Your task to perform on an android device: Search for macbook pro on walmart.com, select the first entry, and add it to the cart. Image 0: 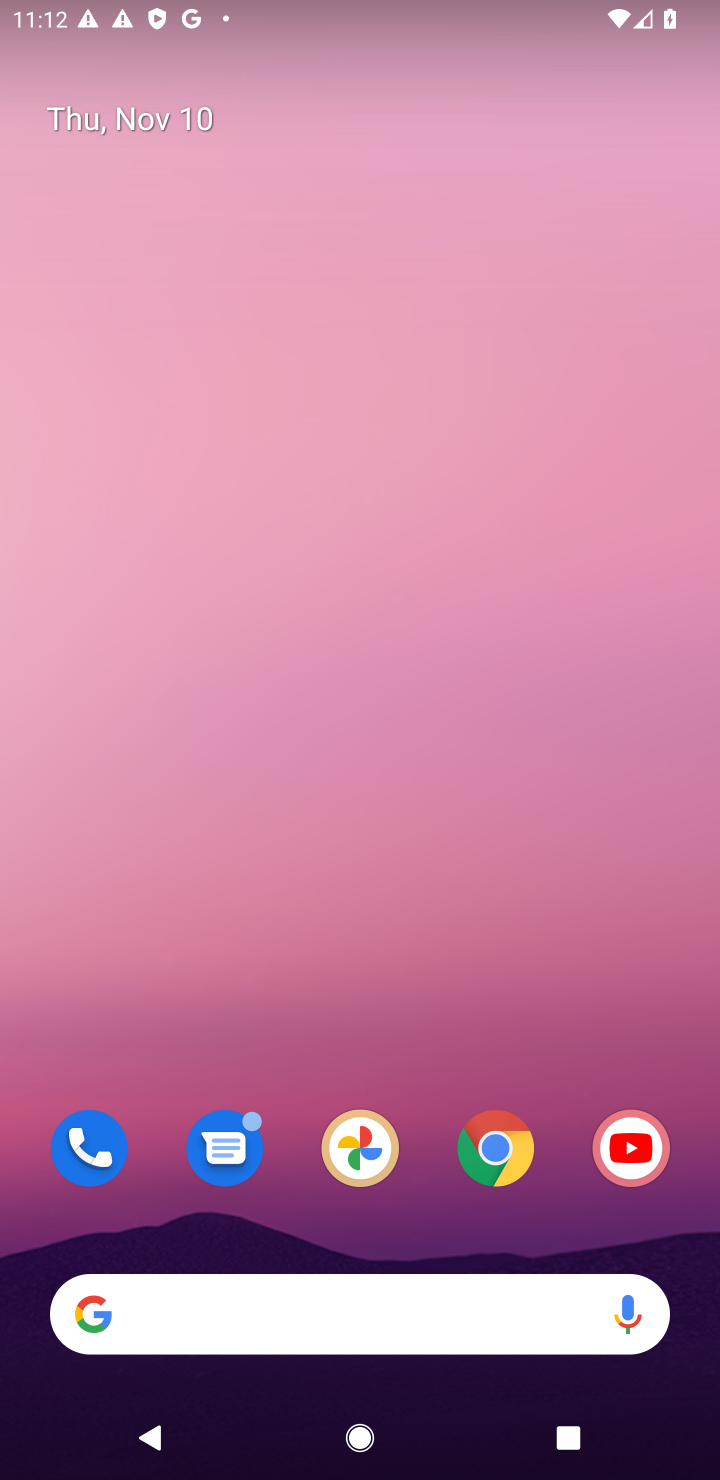
Step 0: press home button
Your task to perform on an android device: Search for macbook pro on walmart.com, select the first entry, and add it to the cart. Image 1: 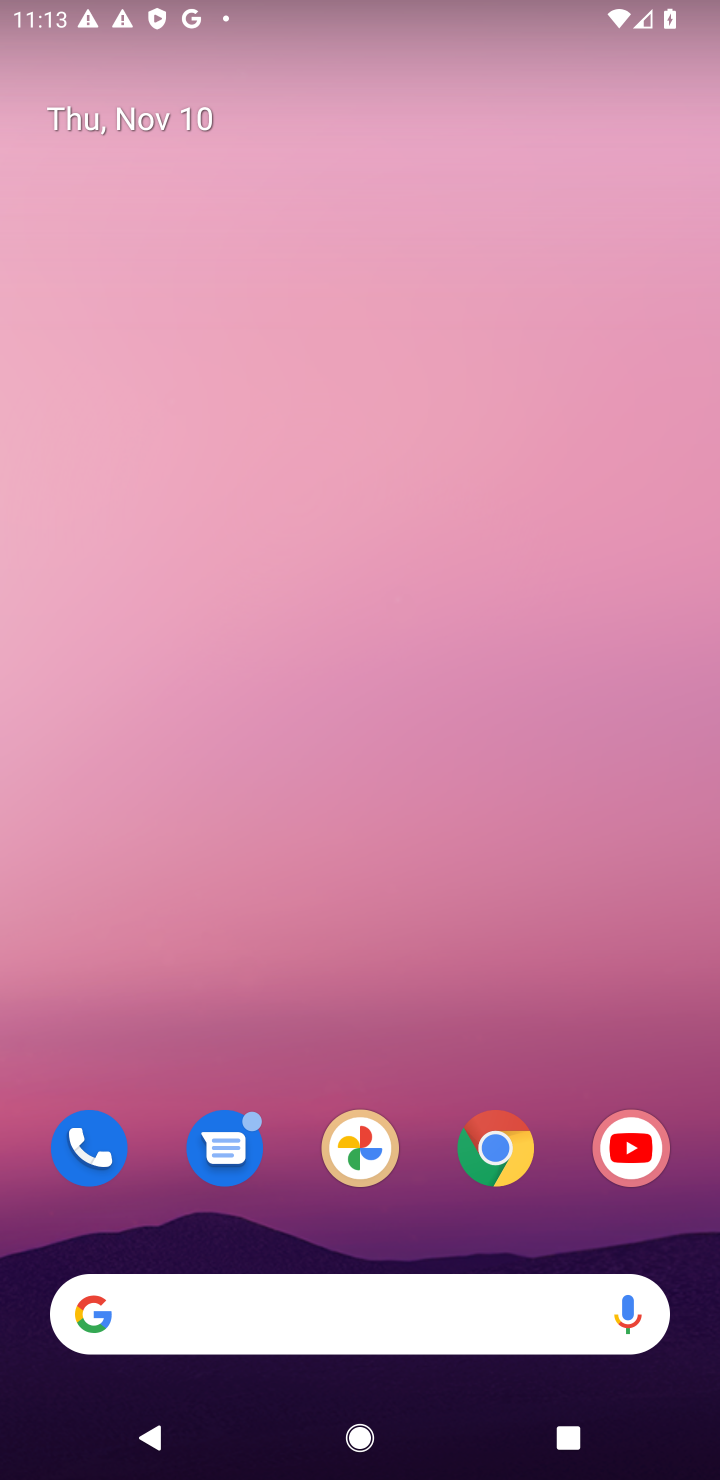
Step 1: click (482, 1137)
Your task to perform on an android device: Search for macbook pro on walmart.com, select the first entry, and add it to the cart. Image 2: 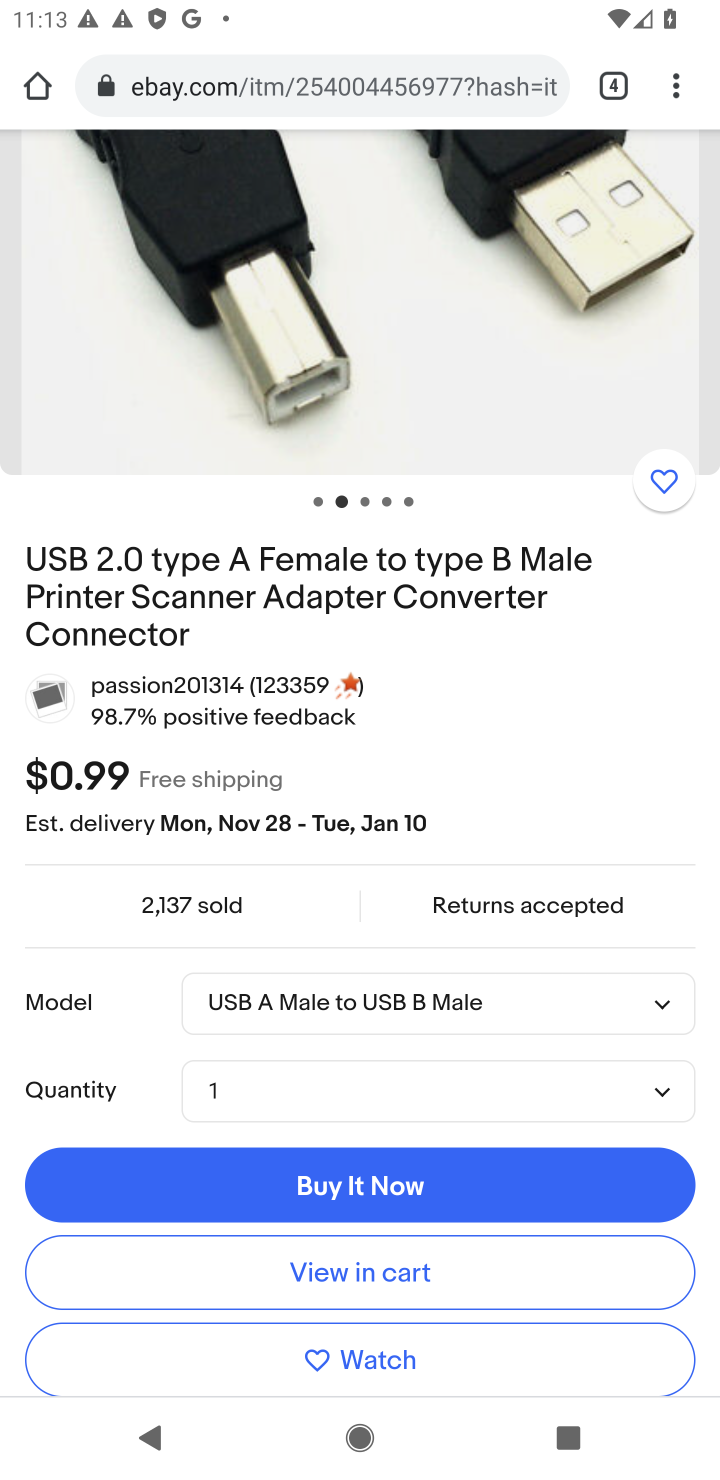
Step 2: click (615, 81)
Your task to perform on an android device: Search for macbook pro on walmart.com, select the first entry, and add it to the cart. Image 3: 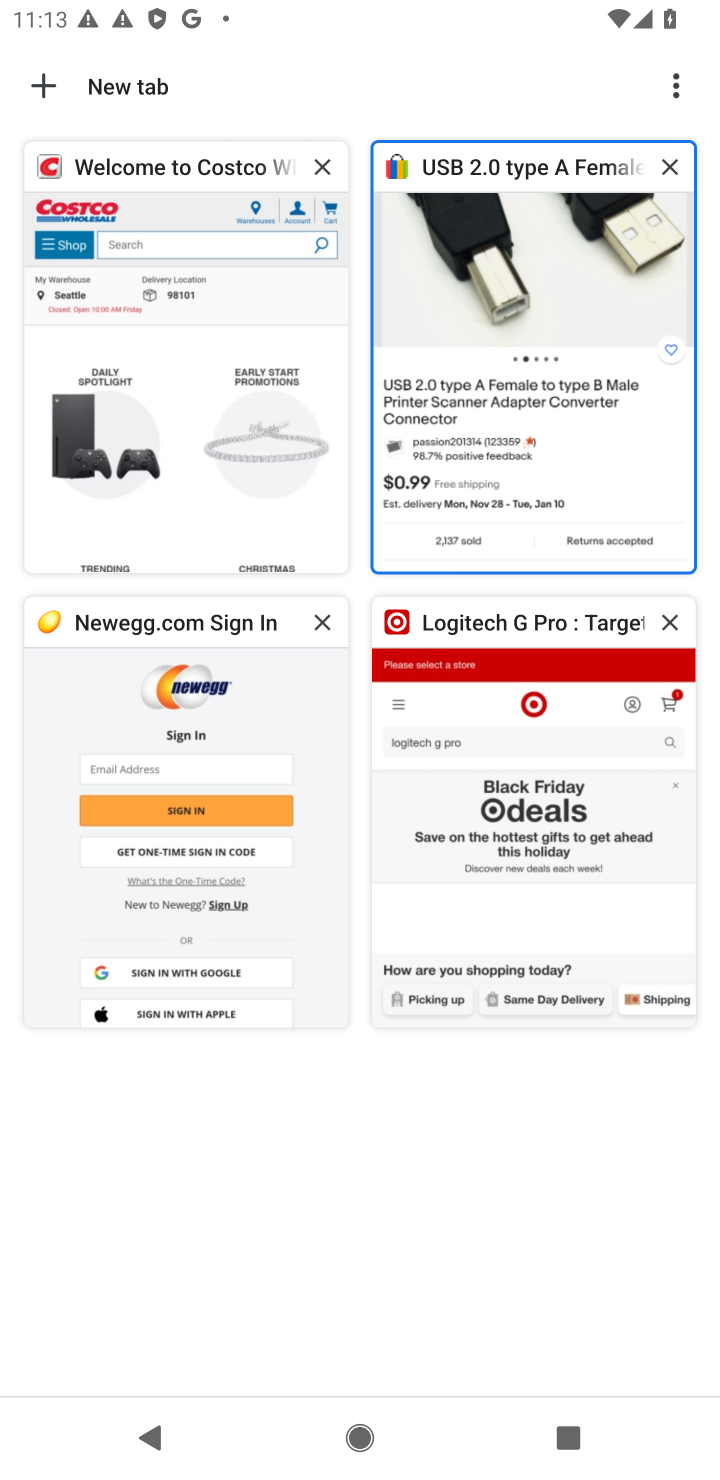
Step 3: click (38, 92)
Your task to perform on an android device: Search for macbook pro on walmart.com, select the first entry, and add it to the cart. Image 4: 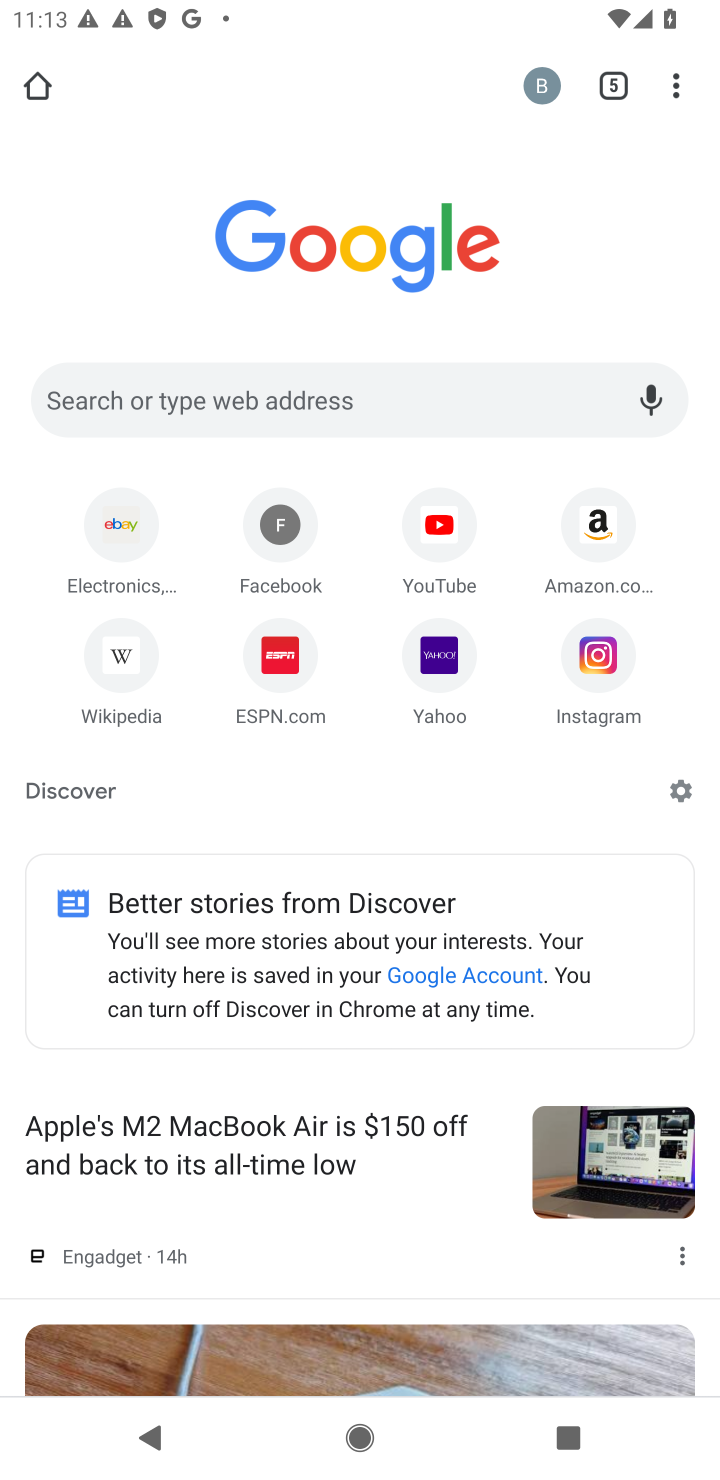
Step 4: click (614, 90)
Your task to perform on an android device: Search for macbook pro on walmart.com, select the first entry, and add it to the cart. Image 5: 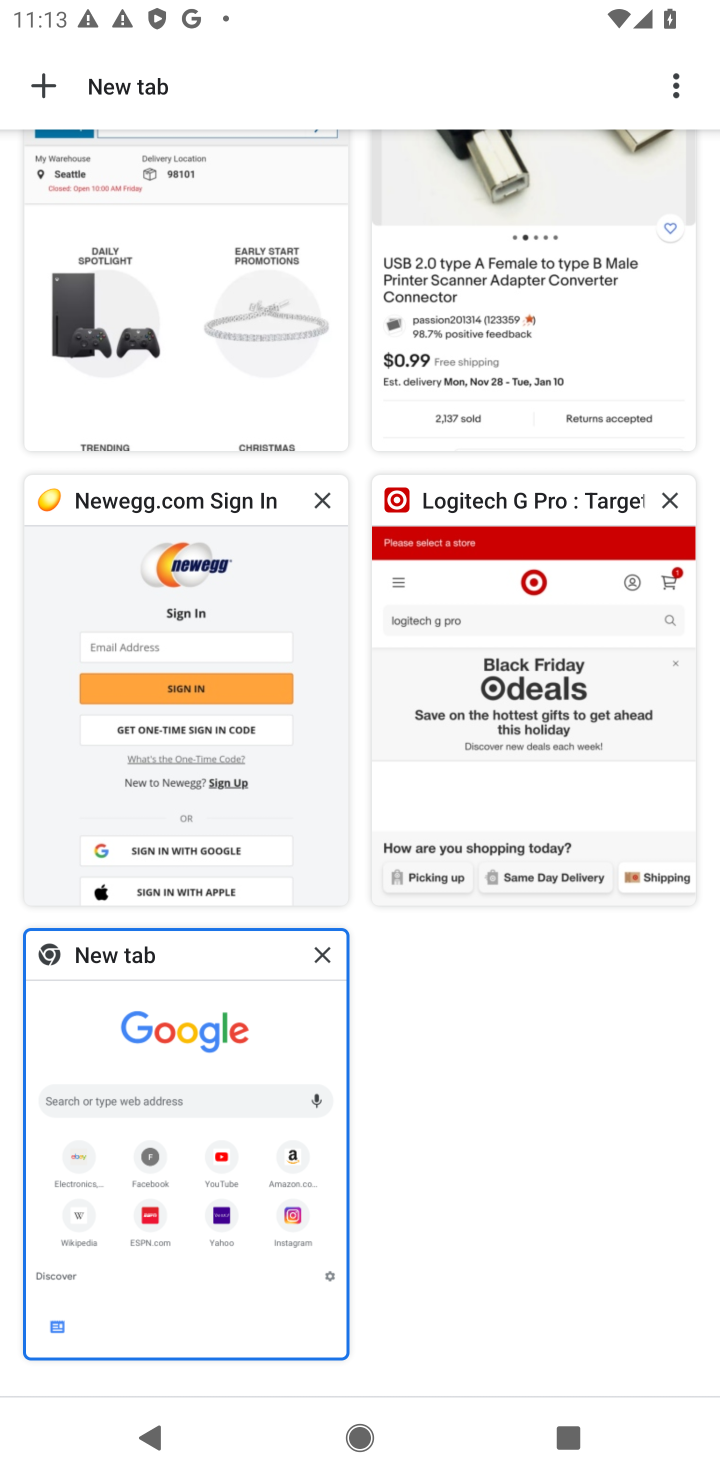
Step 5: click (279, 1015)
Your task to perform on an android device: Search for macbook pro on walmart.com, select the first entry, and add it to the cart. Image 6: 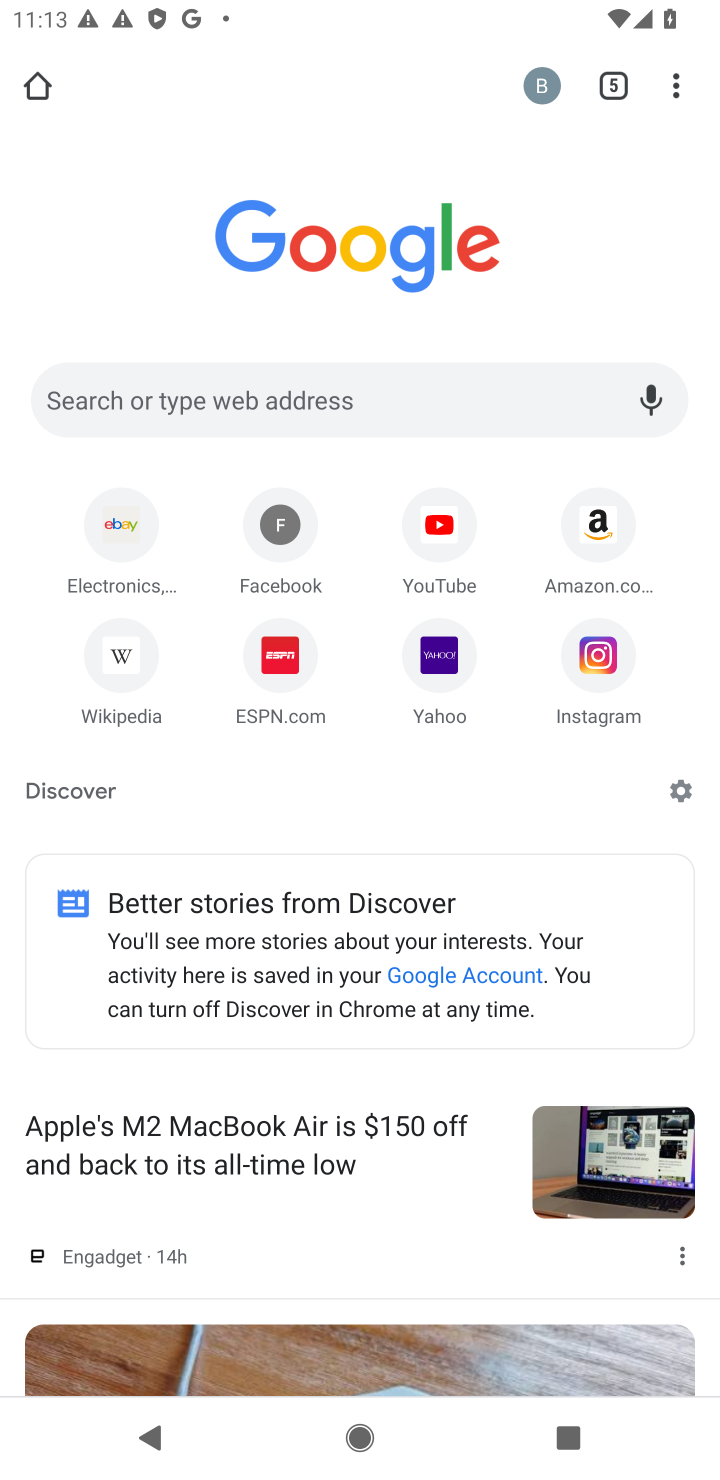
Step 6: click (291, 391)
Your task to perform on an android device: Search for macbook pro on walmart.com, select the first entry, and add it to the cart. Image 7: 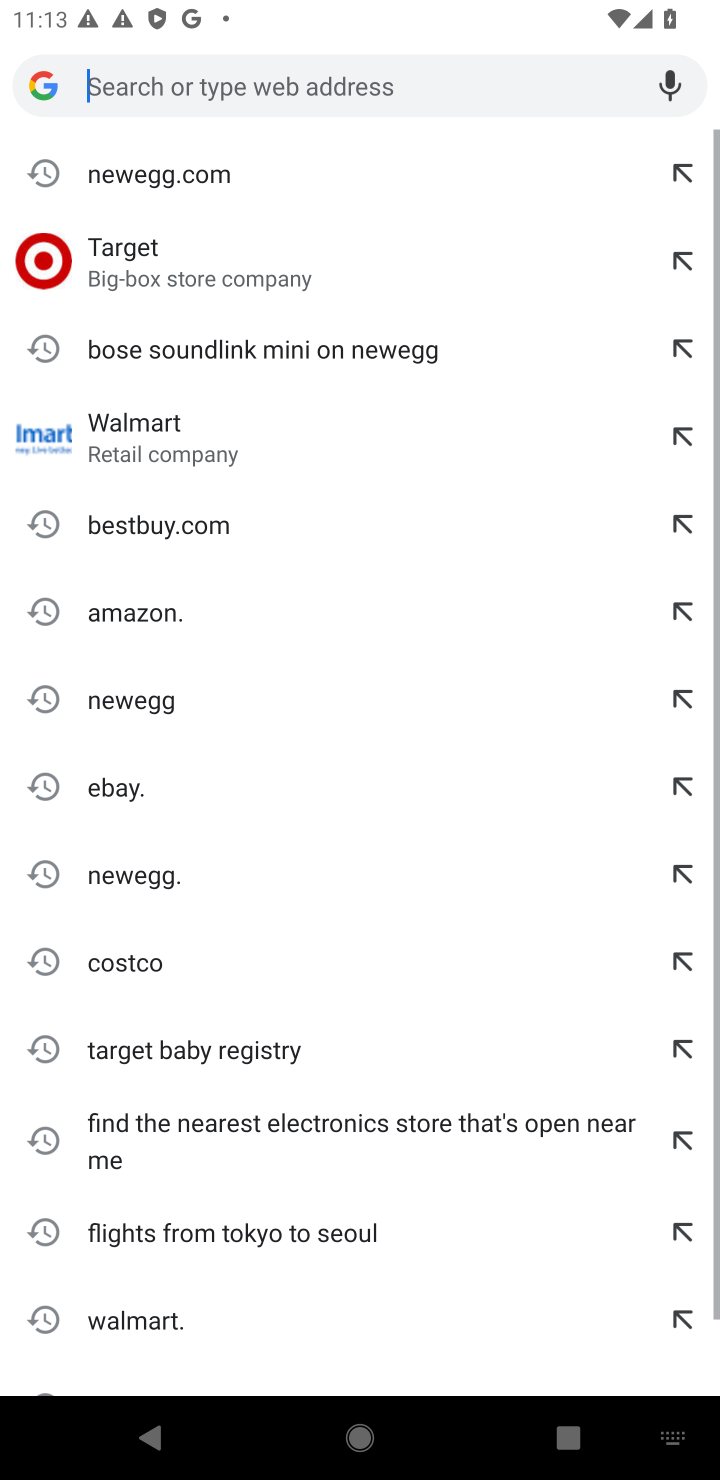
Step 7: click (170, 435)
Your task to perform on an android device: Search for macbook pro on walmart.com, select the first entry, and add it to the cart. Image 8: 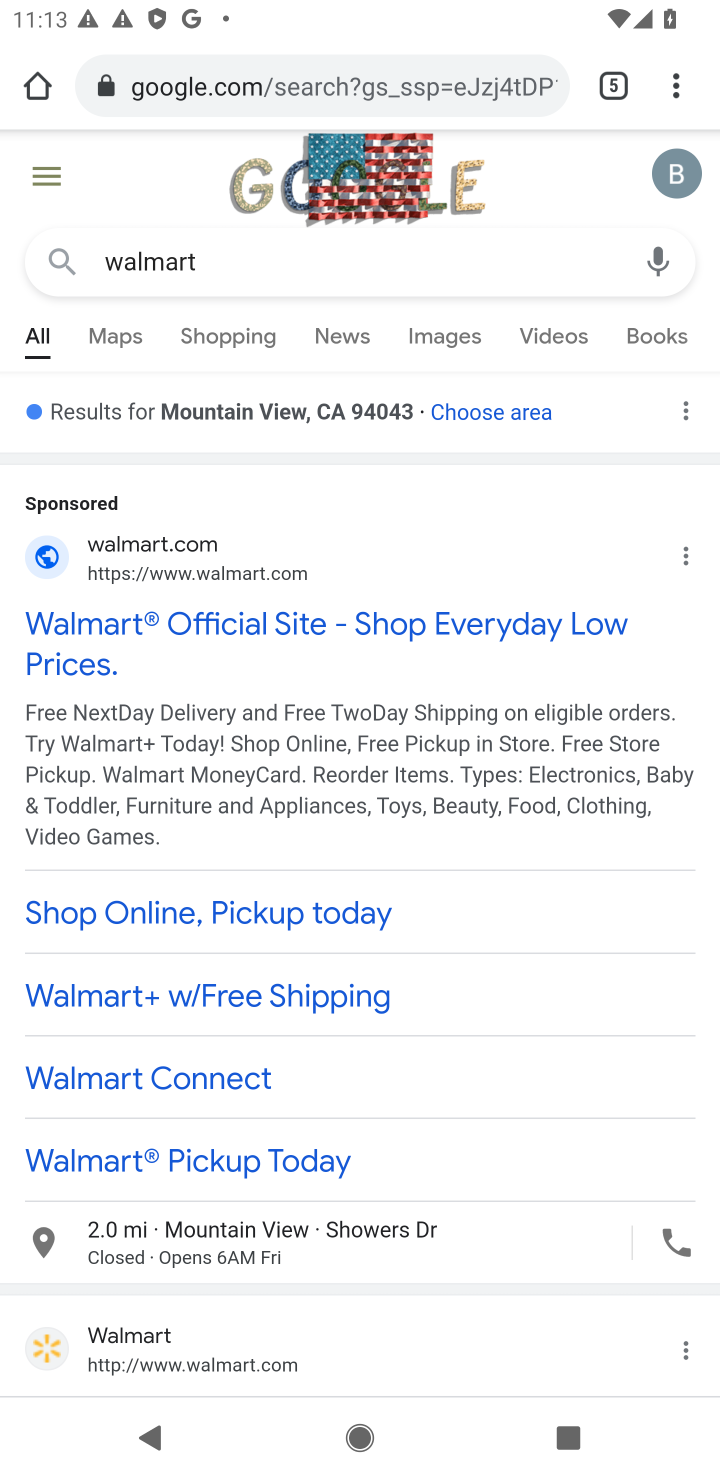
Step 8: click (227, 626)
Your task to perform on an android device: Search for macbook pro on walmart.com, select the first entry, and add it to the cart. Image 9: 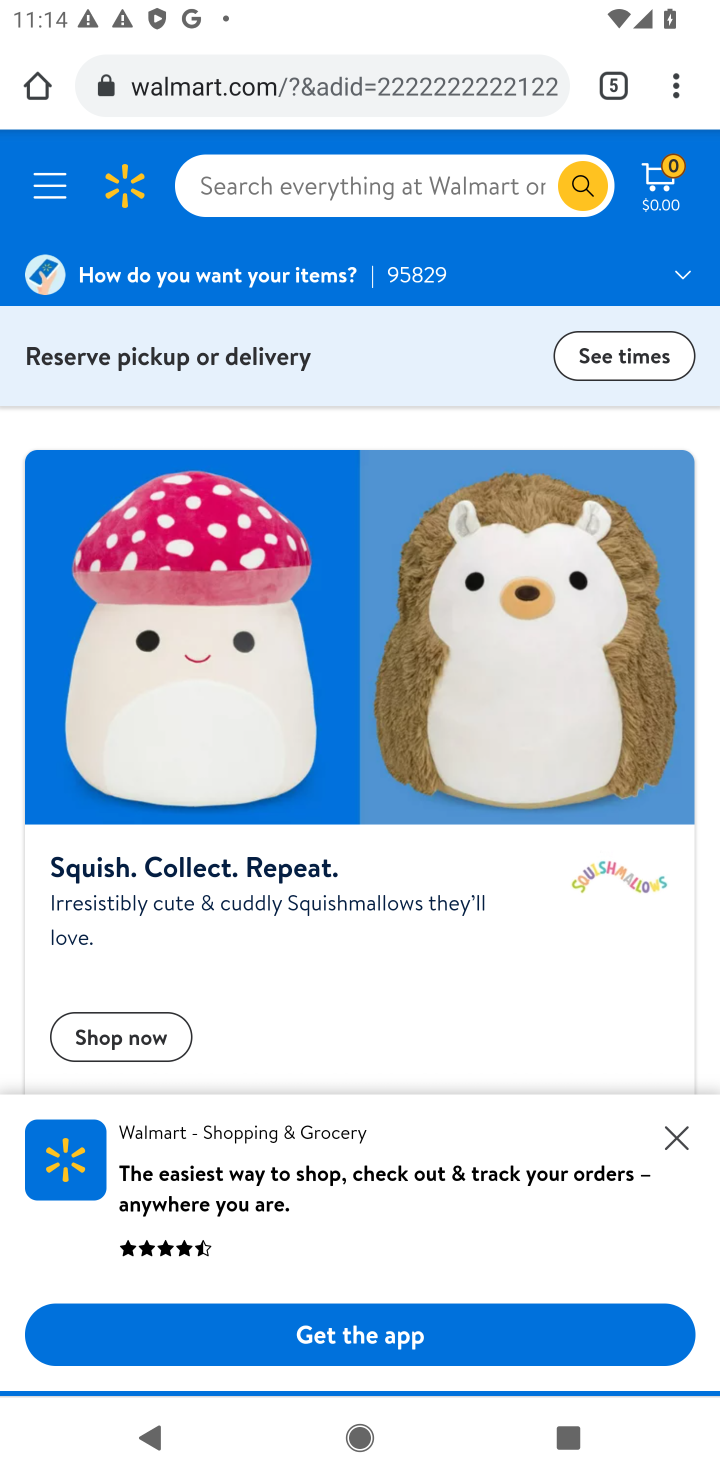
Step 9: click (678, 1134)
Your task to perform on an android device: Search for macbook pro on walmart.com, select the first entry, and add it to the cart. Image 10: 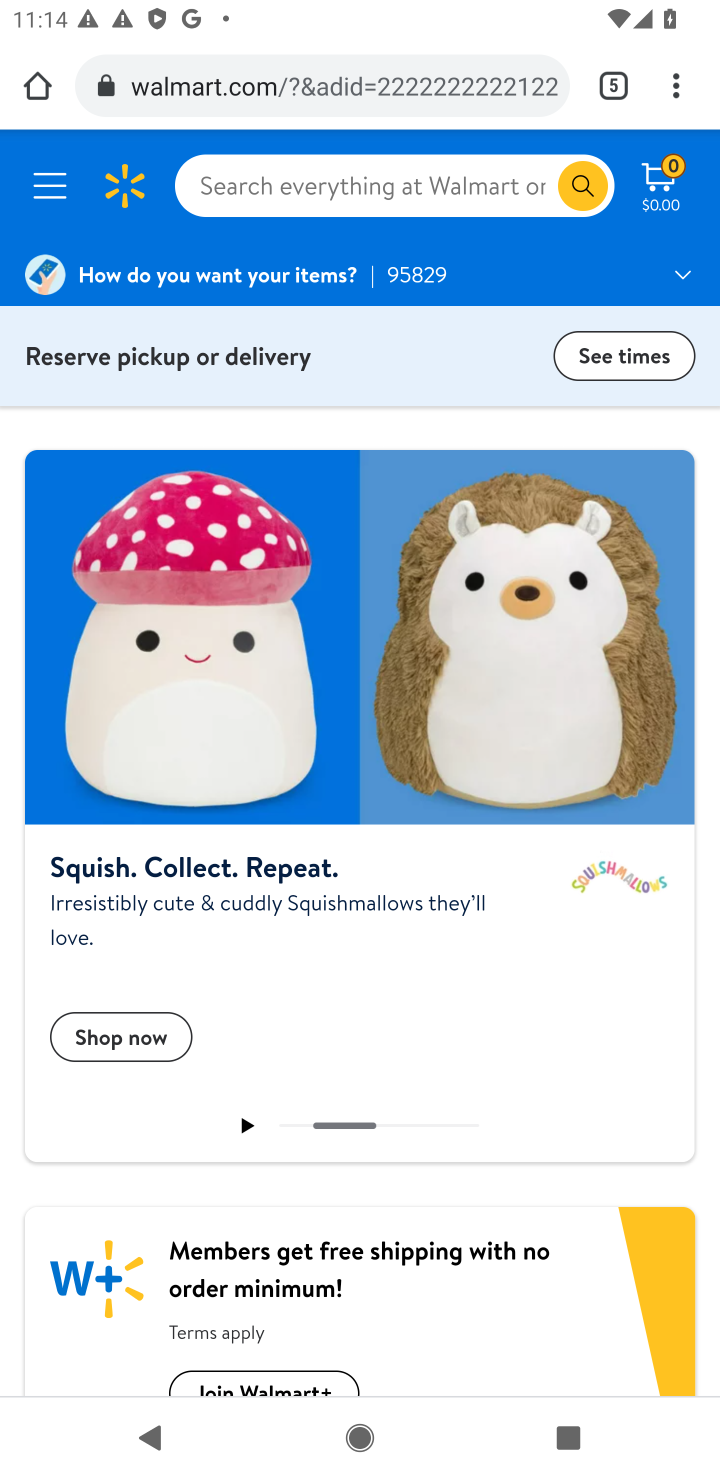
Step 10: click (311, 174)
Your task to perform on an android device: Search for macbook pro on walmart.com, select the first entry, and add it to the cart. Image 11: 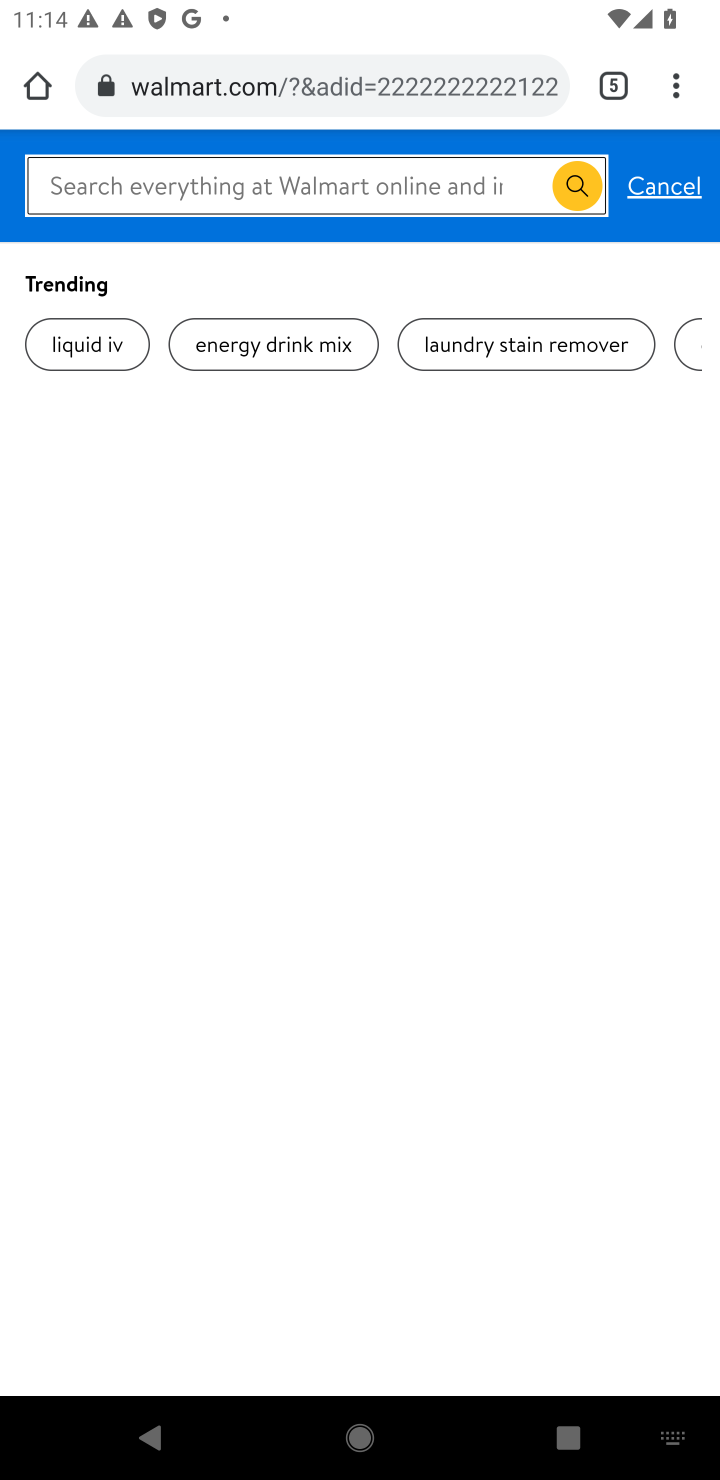
Step 11: type "macbook pro"
Your task to perform on an android device: Search for macbook pro on walmart.com, select the first entry, and add it to the cart. Image 12: 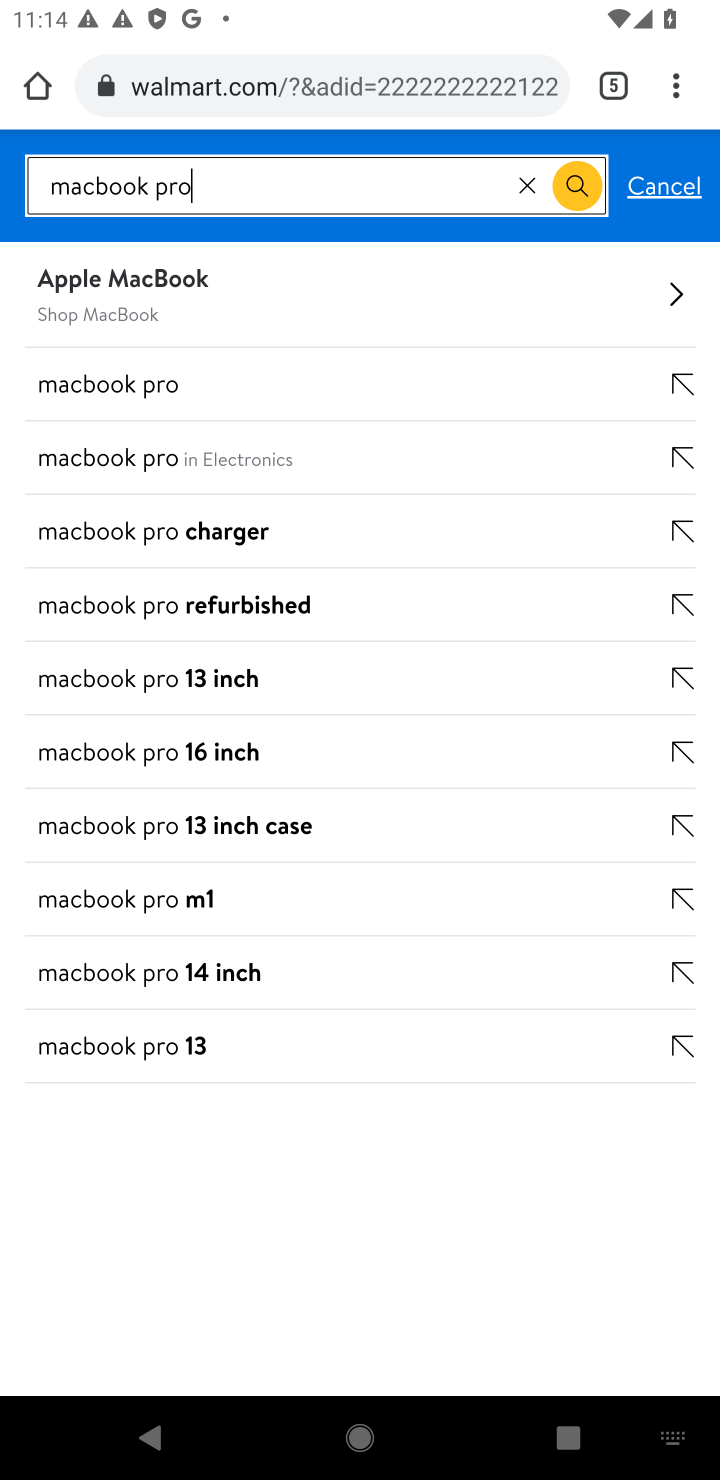
Step 12: click (163, 450)
Your task to perform on an android device: Search for macbook pro on walmart.com, select the first entry, and add it to the cart. Image 13: 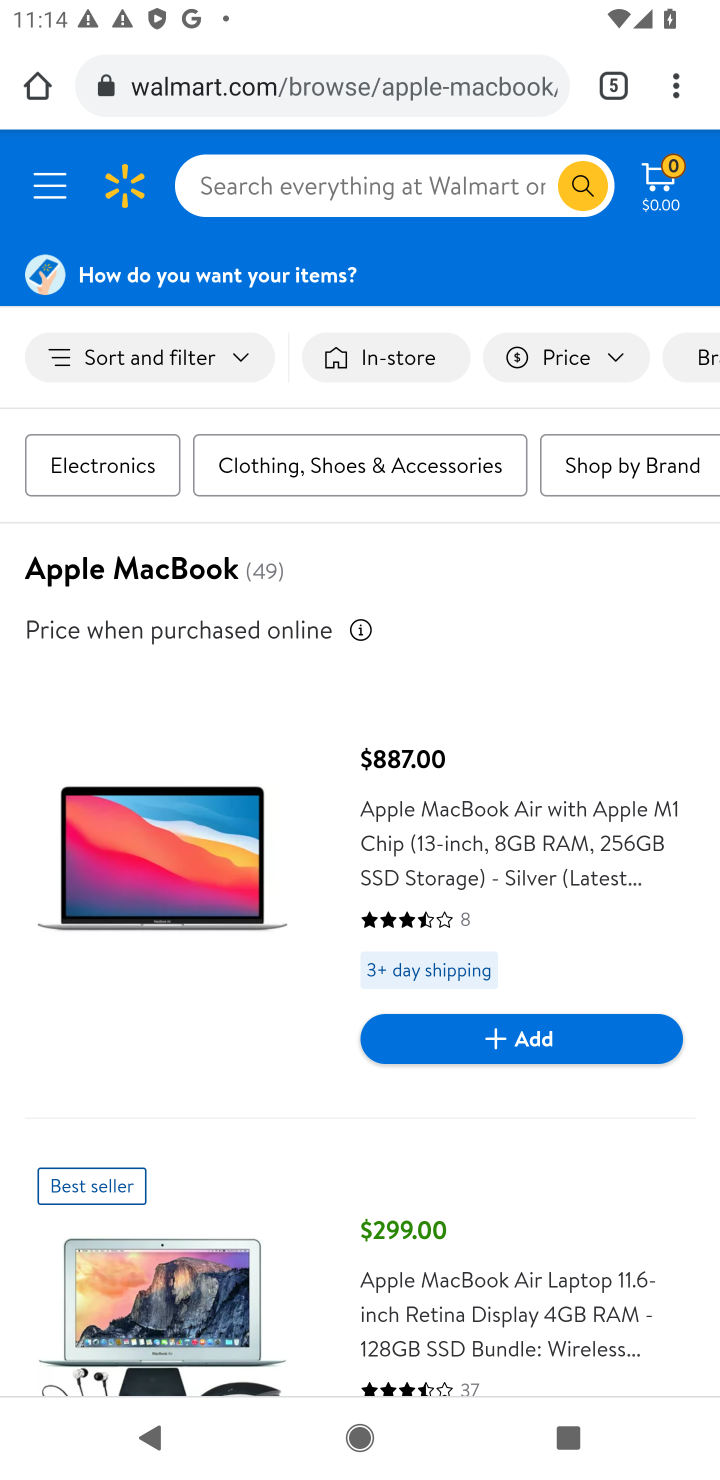
Step 13: click (536, 1047)
Your task to perform on an android device: Search for macbook pro on walmart.com, select the first entry, and add it to the cart. Image 14: 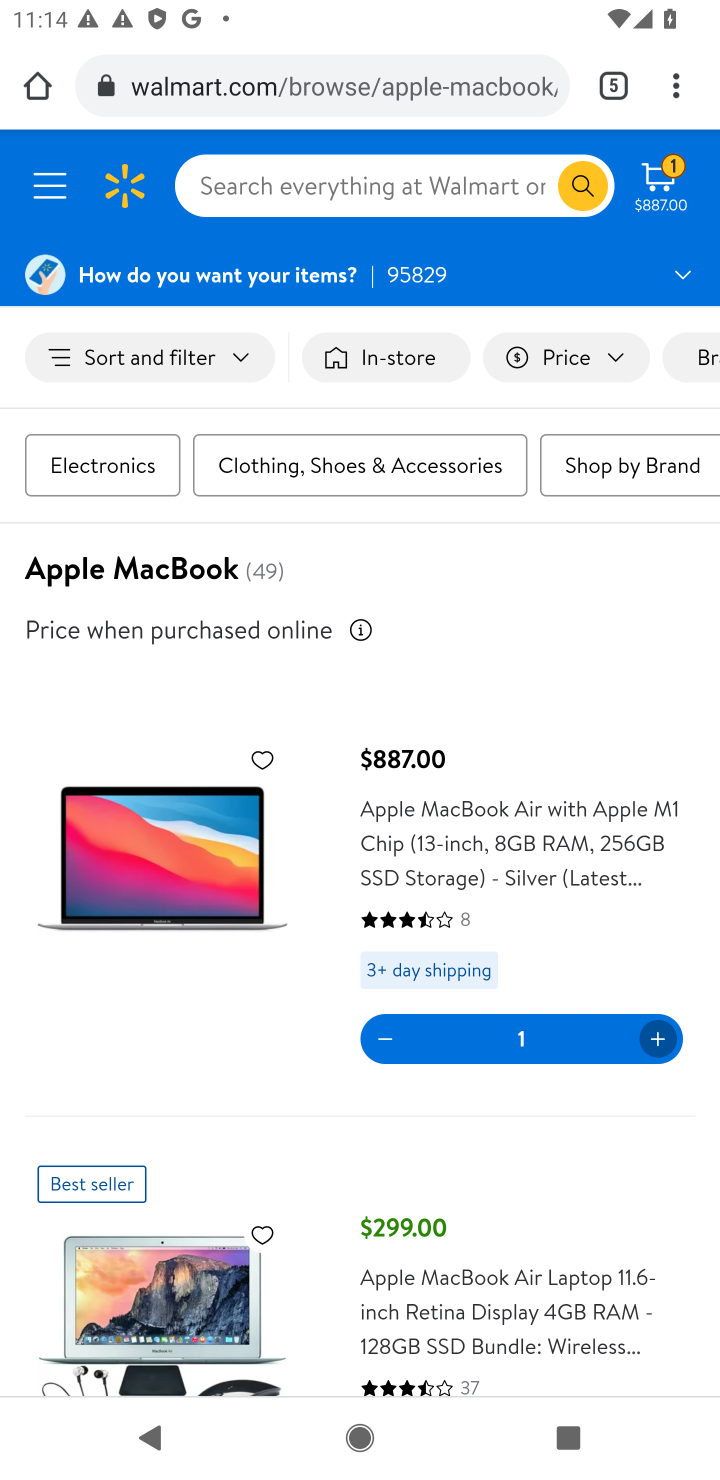
Step 14: task complete